Your task to perform on an android device: open app "Gmail" Image 0: 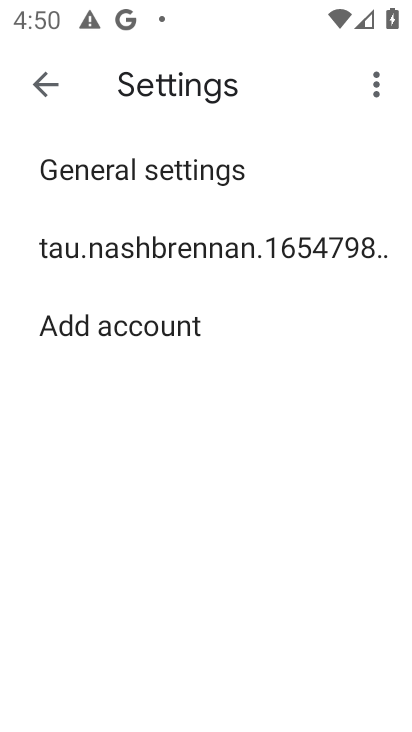
Step 0: drag from (222, 675) to (141, 203)
Your task to perform on an android device: open app "Gmail" Image 1: 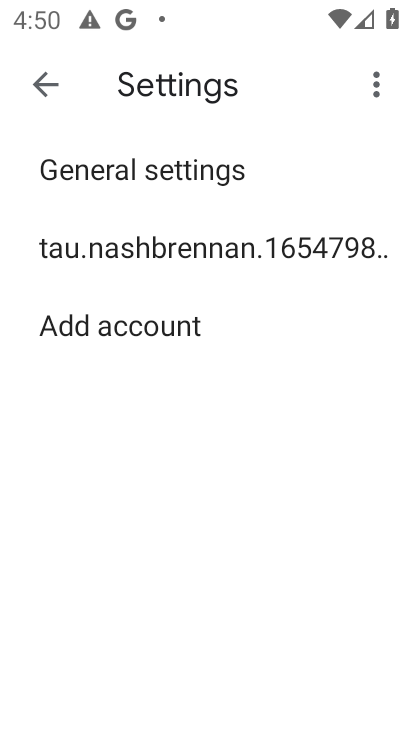
Step 1: click (47, 80)
Your task to perform on an android device: open app "Gmail" Image 2: 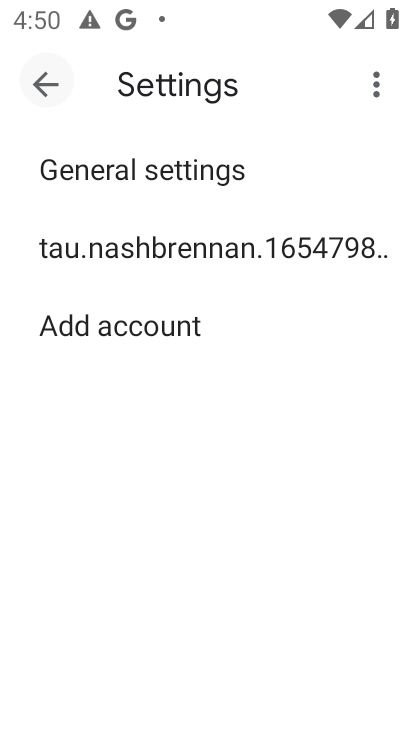
Step 2: click (46, 80)
Your task to perform on an android device: open app "Gmail" Image 3: 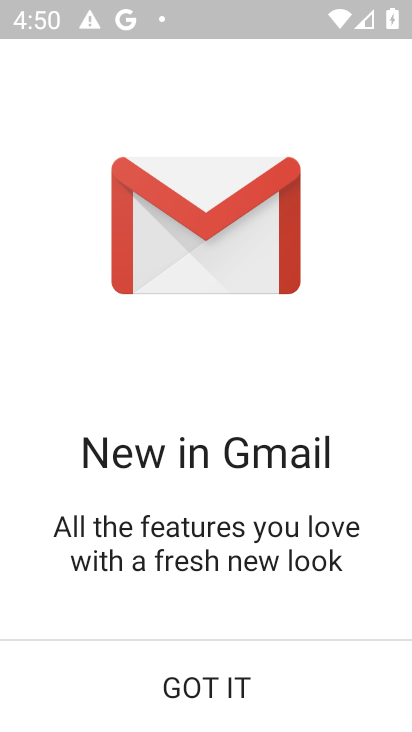
Step 3: click (228, 682)
Your task to perform on an android device: open app "Gmail" Image 4: 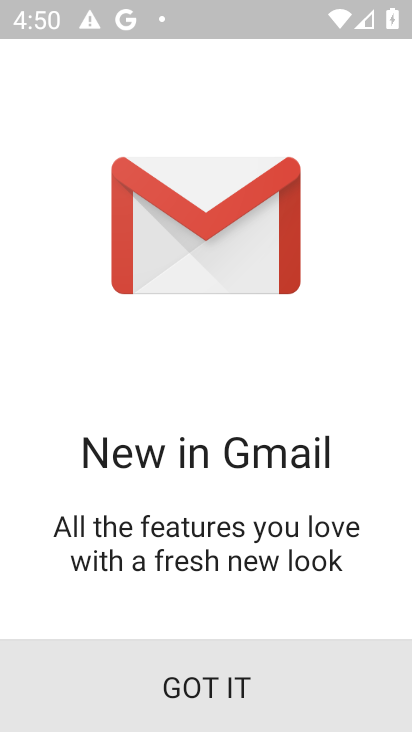
Step 4: click (225, 685)
Your task to perform on an android device: open app "Gmail" Image 5: 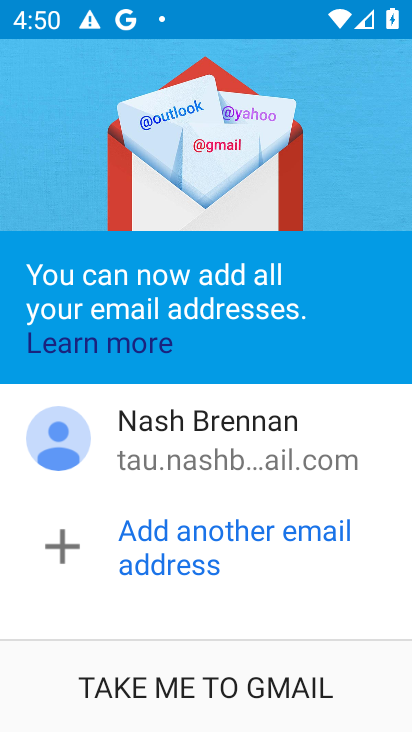
Step 5: click (233, 680)
Your task to perform on an android device: open app "Gmail" Image 6: 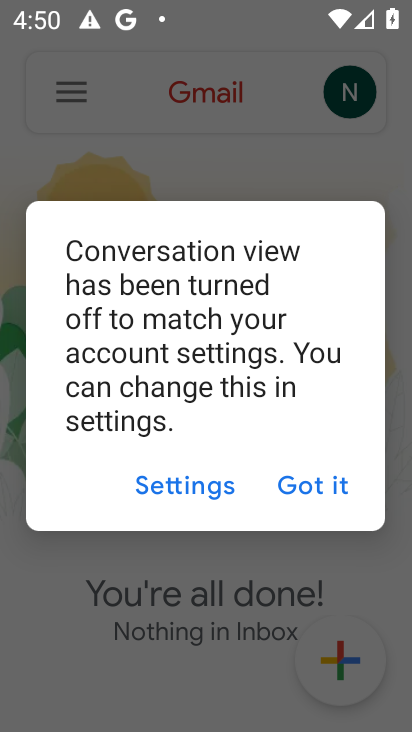
Step 6: click (299, 483)
Your task to perform on an android device: open app "Gmail" Image 7: 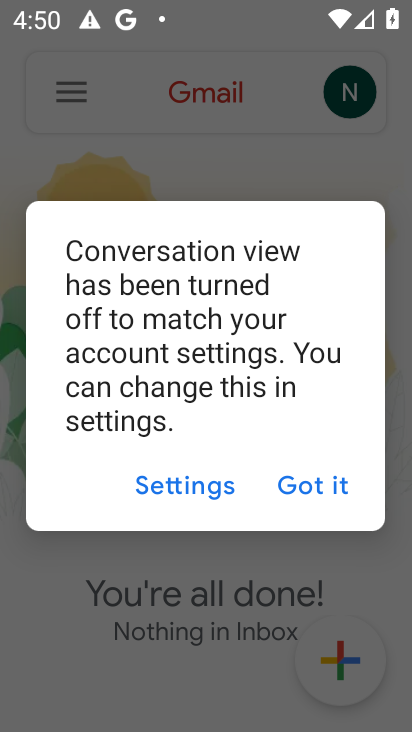
Step 7: click (303, 484)
Your task to perform on an android device: open app "Gmail" Image 8: 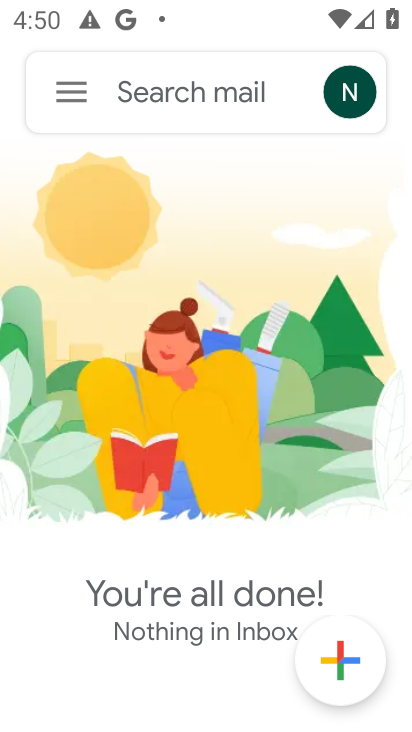
Step 8: task complete